Your task to perform on an android device: turn off translation in the chrome app Image 0: 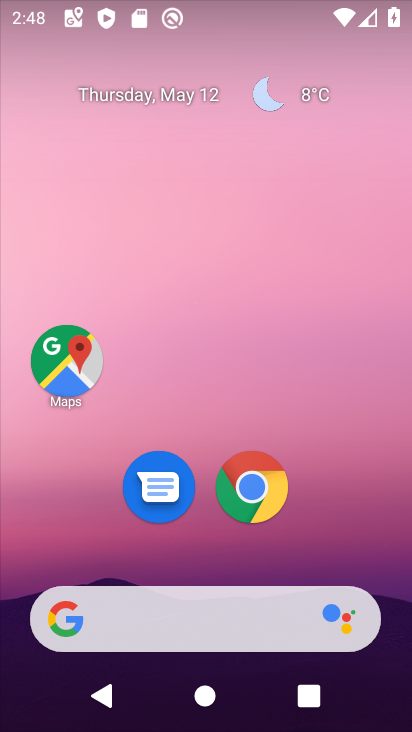
Step 0: click (256, 489)
Your task to perform on an android device: turn off translation in the chrome app Image 1: 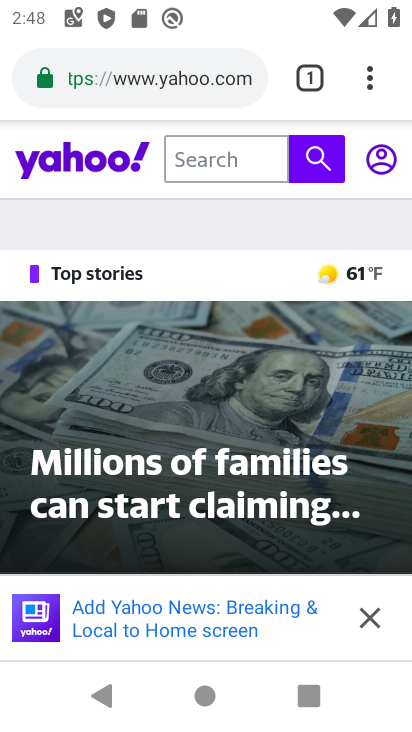
Step 1: drag from (372, 69) to (159, 550)
Your task to perform on an android device: turn off translation in the chrome app Image 2: 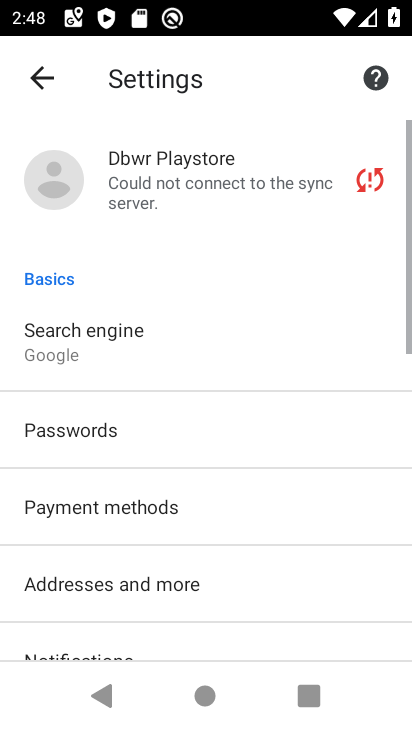
Step 2: drag from (247, 672) to (354, 211)
Your task to perform on an android device: turn off translation in the chrome app Image 3: 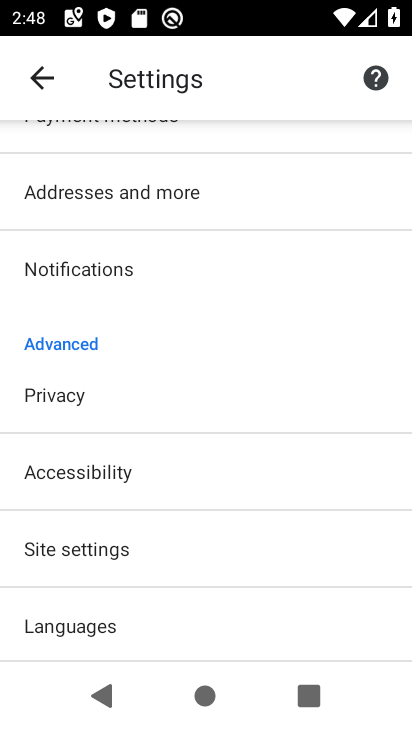
Step 3: drag from (268, 539) to (269, 169)
Your task to perform on an android device: turn off translation in the chrome app Image 4: 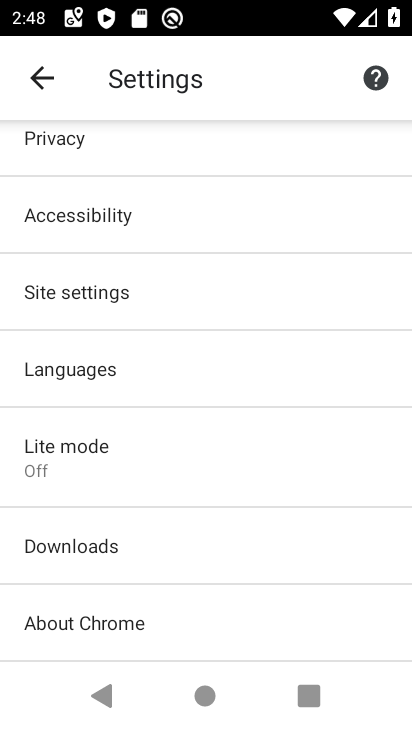
Step 4: click (174, 381)
Your task to perform on an android device: turn off translation in the chrome app Image 5: 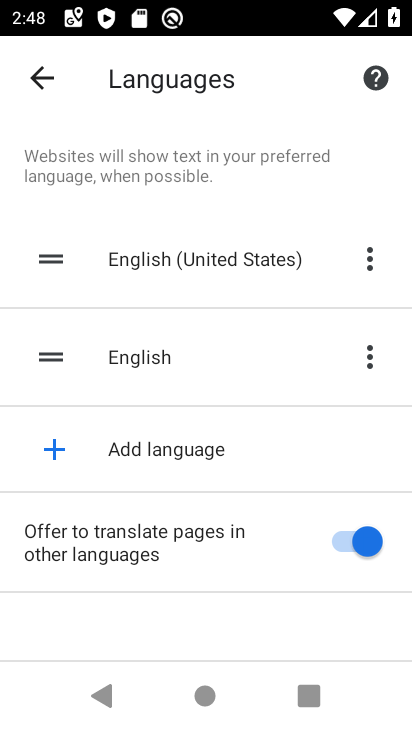
Step 5: drag from (221, 582) to (265, 222)
Your task to perform on an android device: turn off translation in the chrome app Image 6: 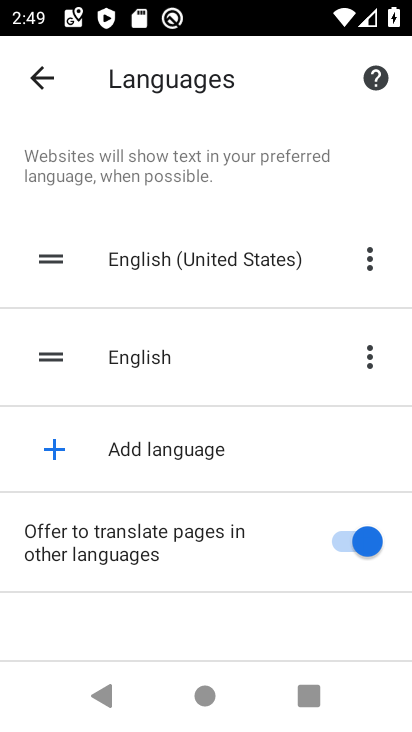
Step 6: click (372, 528)
Your task to perform on an android device: turn off translation in the chrome app Image 7: 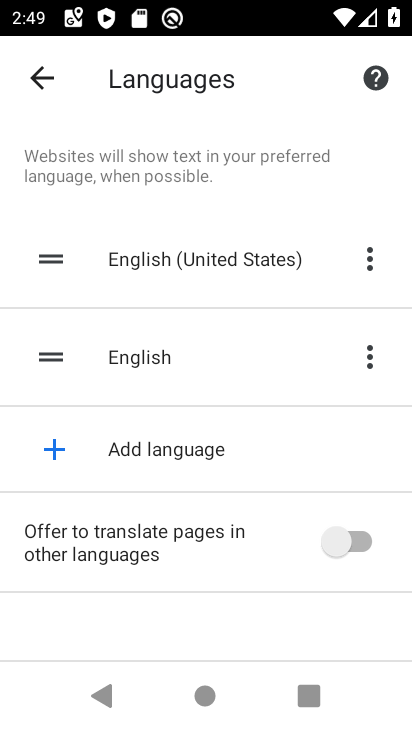
Step 7: task complete